Your task to perform on an android device: create a new album in the google photos Image 0: 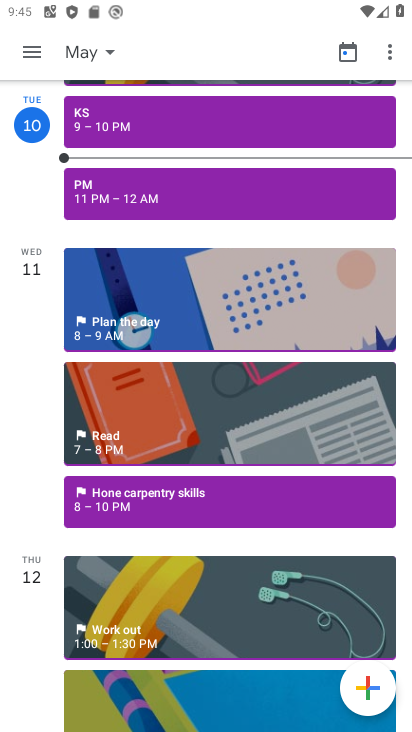
Step 0: press home button
Your task to perform on an android device: create a new album in the google photos Image 1: 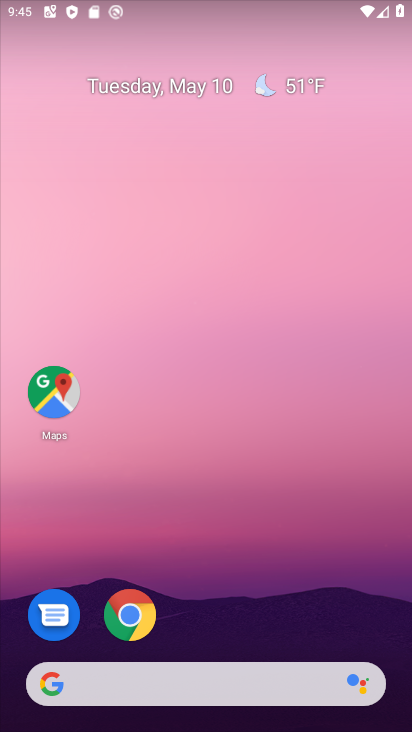
Step 1: drag from (296, 560) to (206, 59)
Your task to perform on an android device: create a new album in the google photos Image 2: 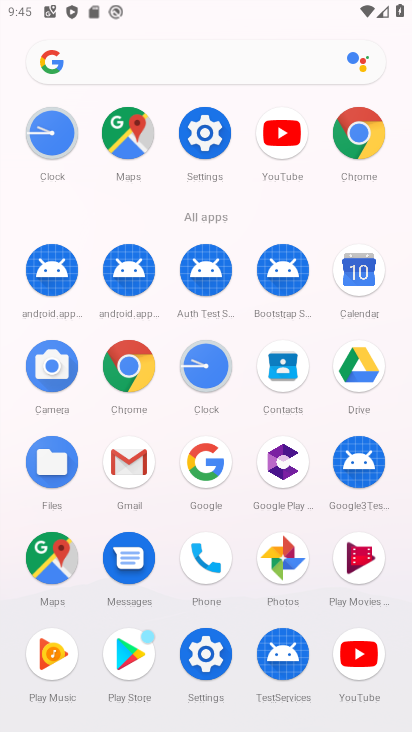
Step 2: click (281, 566)
Your task to perform on an android device: create a new album in the google photos Image 3: 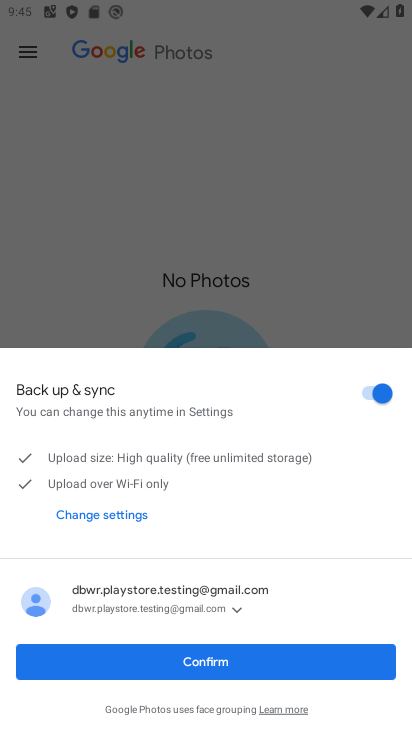
Step 3: click (154, 658)
Your task to perform on an android device: create a new album in the google photos Image 4: 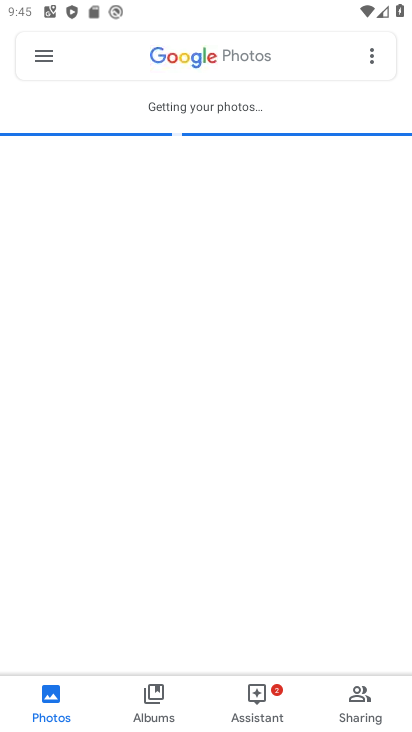
Step 4: click (150, 712)
Your task to perform on an android device: create a new album in the google photos Image 5: 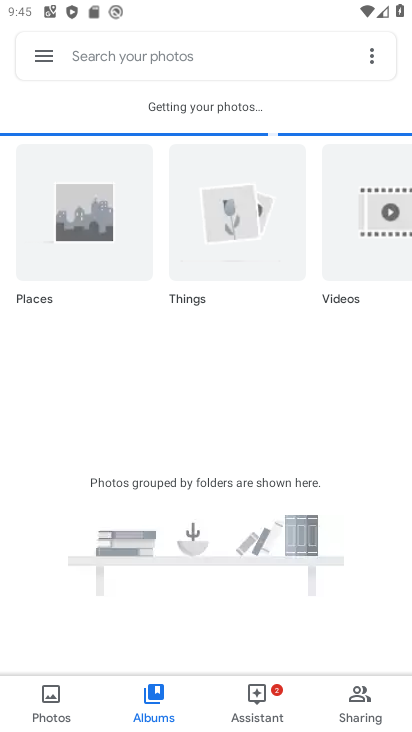
Step 5: drag from (180, 421) to (191, 210)
Your task to perform on an android device: create a new album in the google photos Image 6: 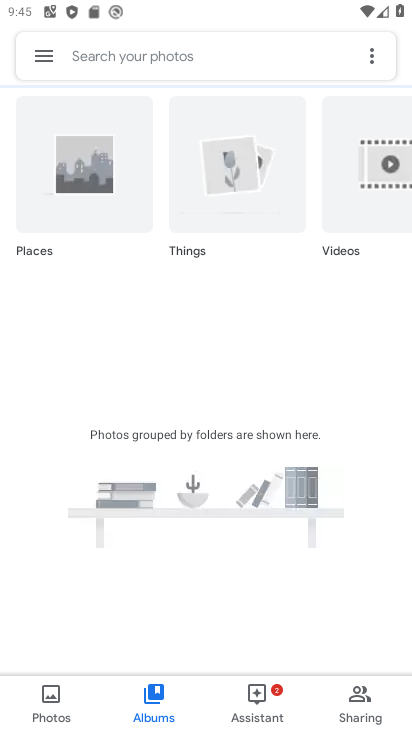
Step 6: drag from (200, 583) to (189, 245)
Your task to perform on an android device: create a new album in the google photos Image 7: 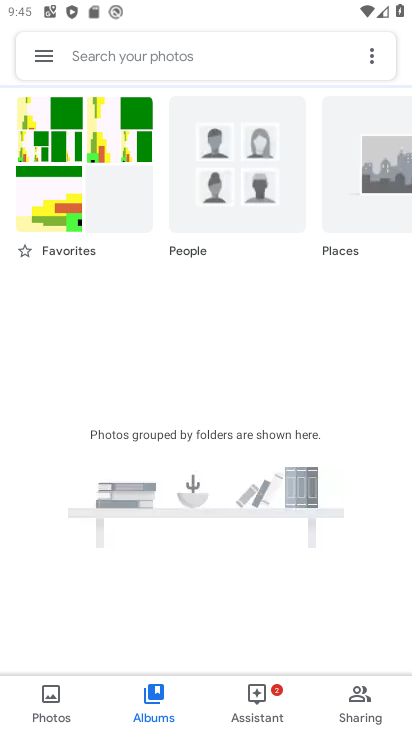
Step 7: click (377, 54)
Your task to perform on an android device: create a new album in the google photos Image 8: 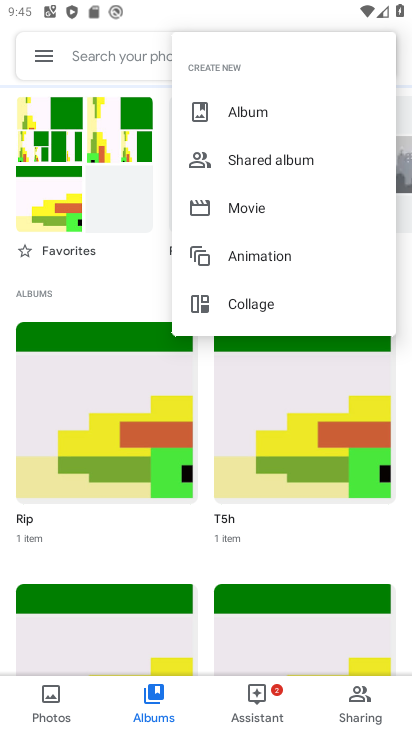
Step 8: click (278, 109)
Your task to perform on an android device: create a new album in the google photos Image 9: 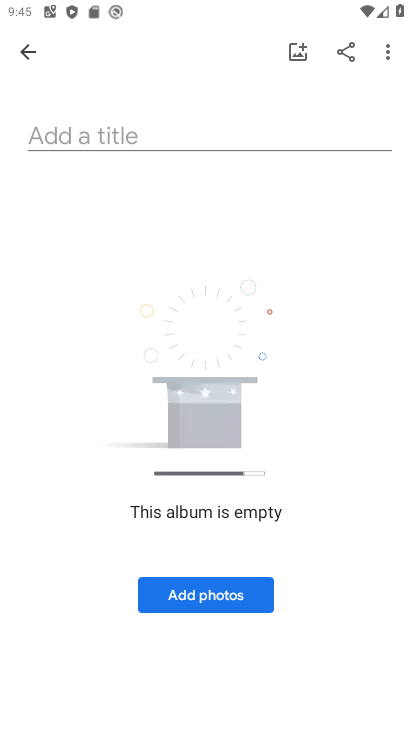
Step 9: click (107, 130)
Your task to perform on an android device: create a new album in the google photos Image 10: 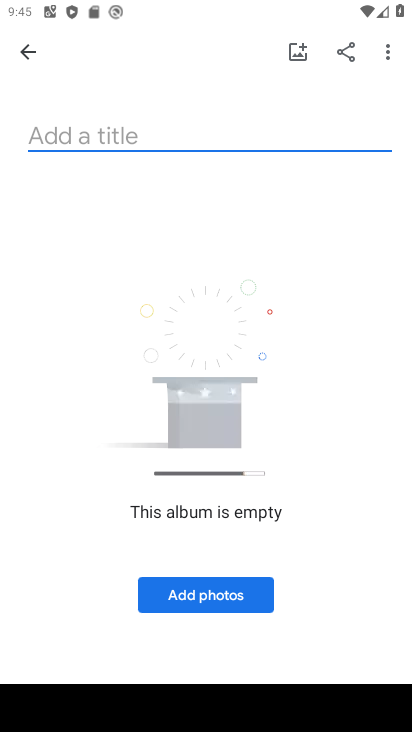
Step 10: type "rfgsfgs"
Your task to perform on an android device: create a new album in the google photos Image 11: 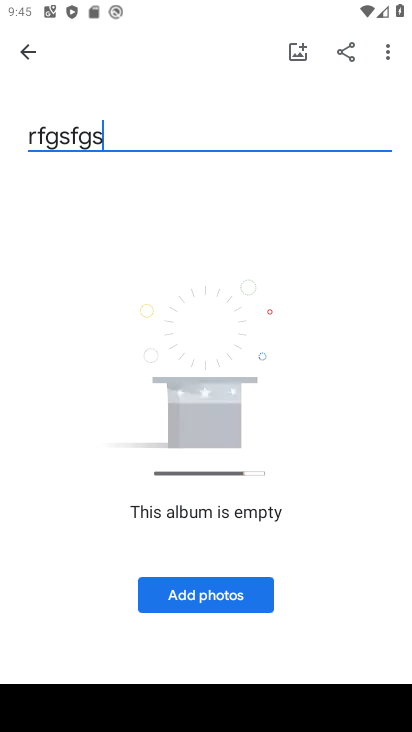
Step 11: type ""
Your task to perform on an android device: create a new album in the google photos Image 12: 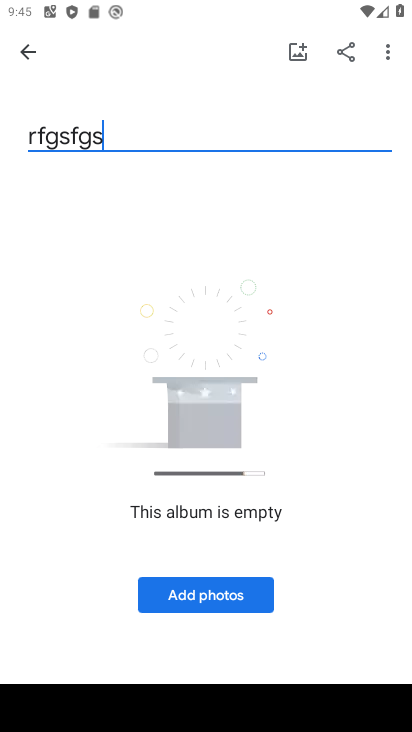
Step 12: click (217, 598)
Your task to perform on an android device: create a new album in the google photos Image 13: 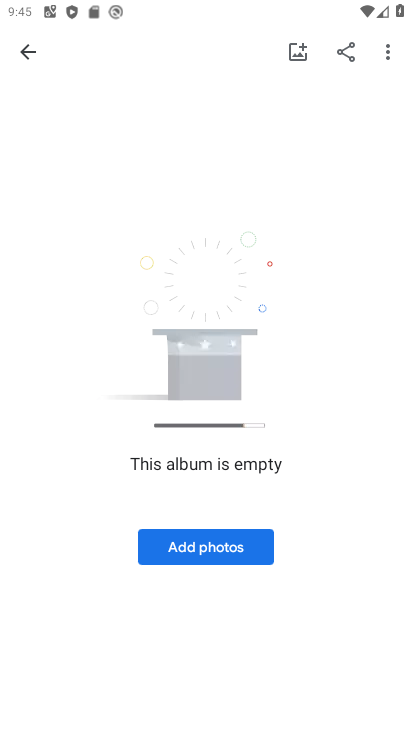
Step 13: click (225, 534)
Your task to perform on an android device: create a new album in the google photos Image 14: 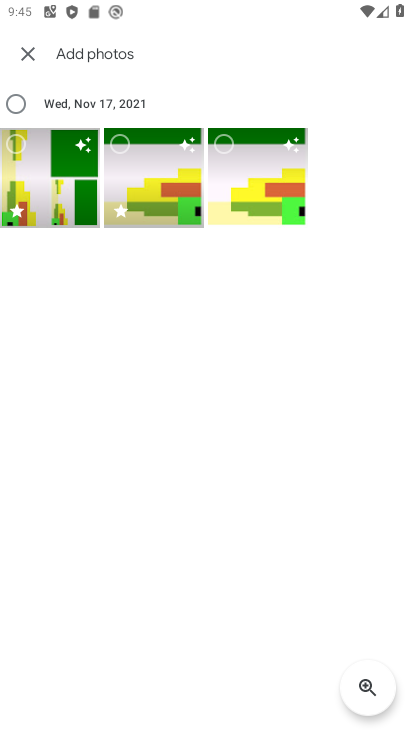
Step 14: click (160, 190)
Your task to perform on an android device: create a new album in the google photos Image 15: 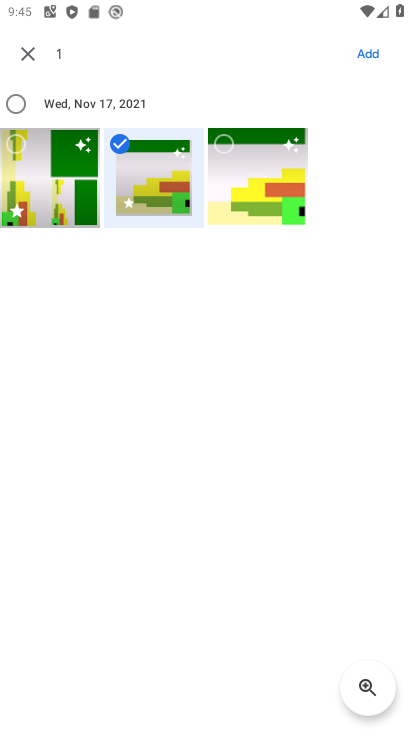
Step 15: click (262, 186)
Your task to perform on an android device: create a new album in the google photos Image 16: 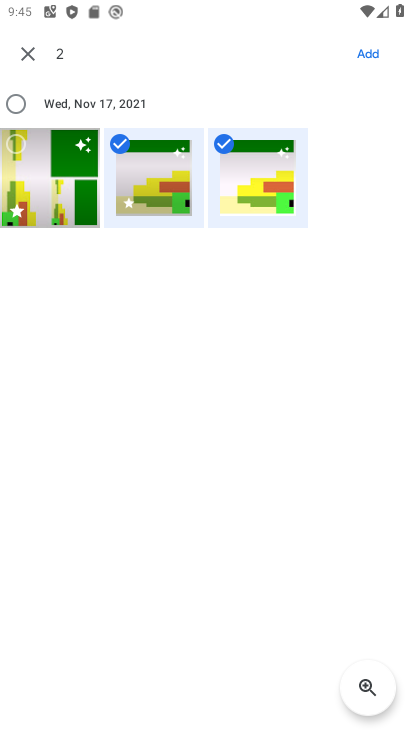
Step 16: click (366, 49)
Your task to perform on an android device: create a new album in the google photos Image 17: 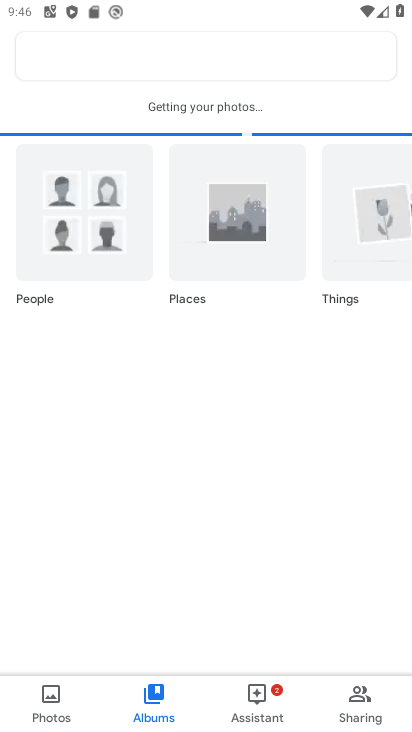
Step 17: task complete